Your task to perform on an android device: read, delete, or share a saved page in the chrome app Image 0: 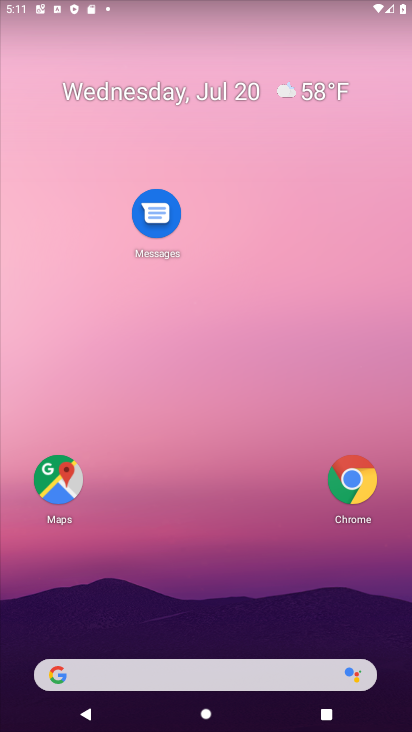
Step 0: drag from (178, 525) to (180, 224)
Your task to perform on an android device: read, delete, or share a saved page in the chrome app Image 1: 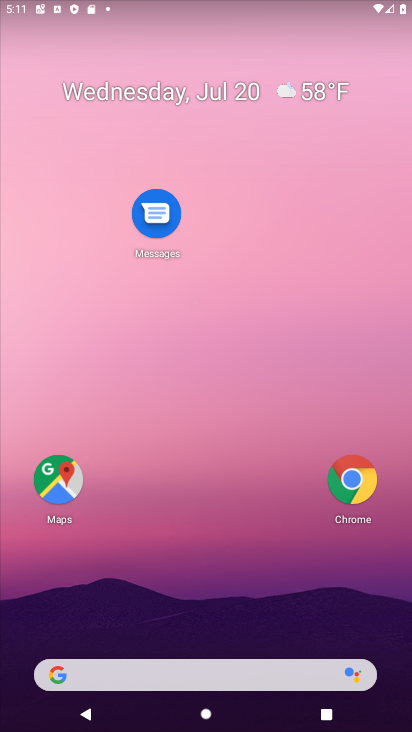
Step 1: click (349, 482)
Your task to perform on an android device: read, delete, or share a saved page in the chrome app Image 2: 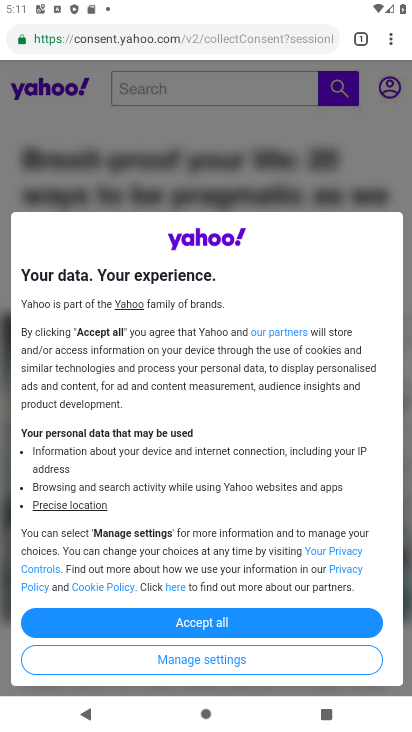
Step 2: click (389, 37)
Your task to perform on an android device: read, delete, or share a saved page in the chrome app Image 3: 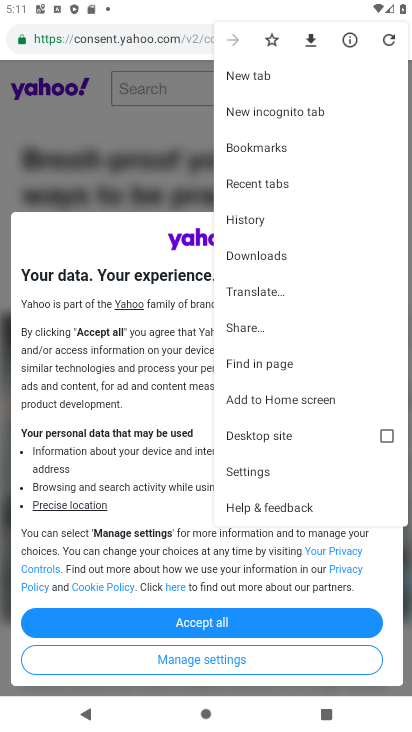
Step 3: task complete